Your task to perform on an android device: turn on the 24-hour format for clock Image 0: 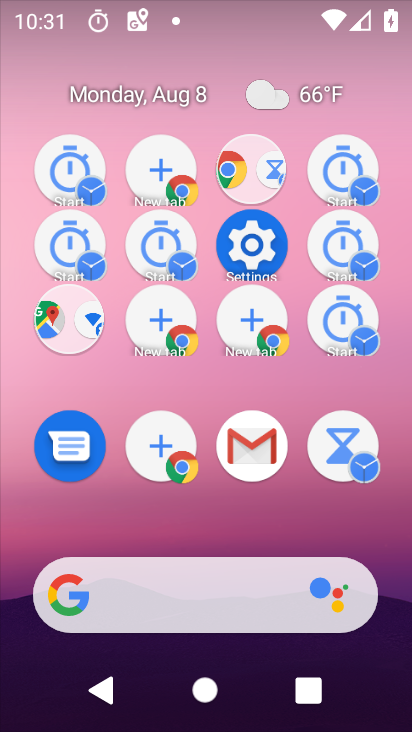
Step 0: drag from (260, 401) to (220, 399)
Your task to perform on an android device: turn on the 24-hour format for clock Image 1: 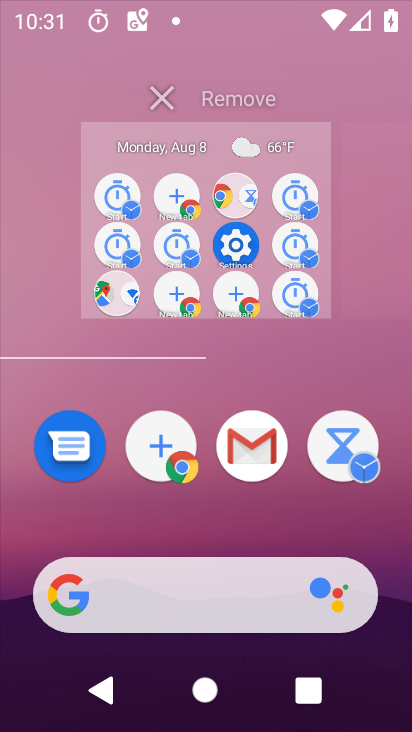
Step 1: drag from (261, 351) to (241, 214)
Your task to perform on an android device: turn on the 24-hour format for clock Image 2: 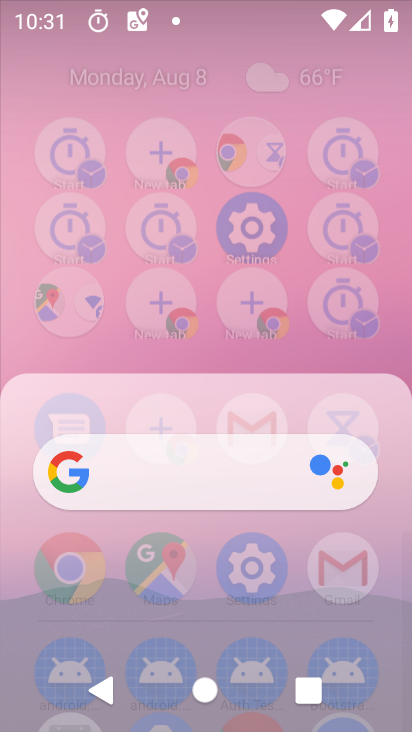
Step 2: drag from (256, 445) to (245, 350)
Your task to perform on an android device: turn on the 24-hour format for clock Image 3: 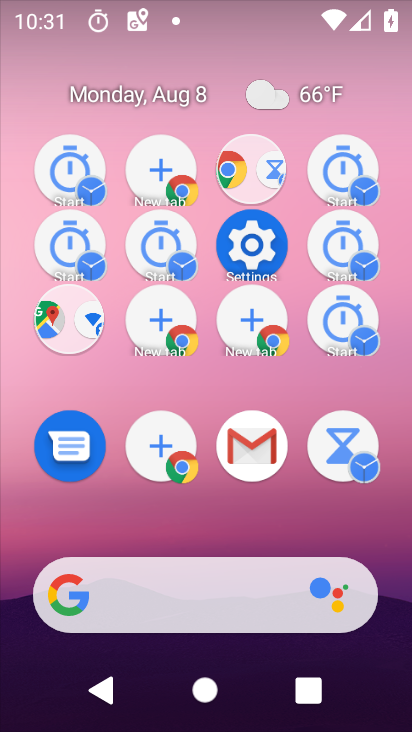
Step 3: drag from (244, 504) to (220, 307)
Your task to perform on an android device: turn on the 24-hour format for clock Image 4: 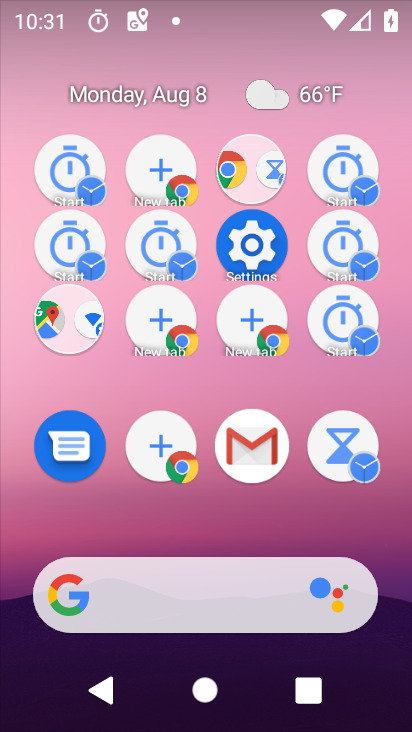
Step 4: drag from (221, 468) to (223, 406)
Your task to perform on an android device: turn on the 24-hour format for clock Image 5: 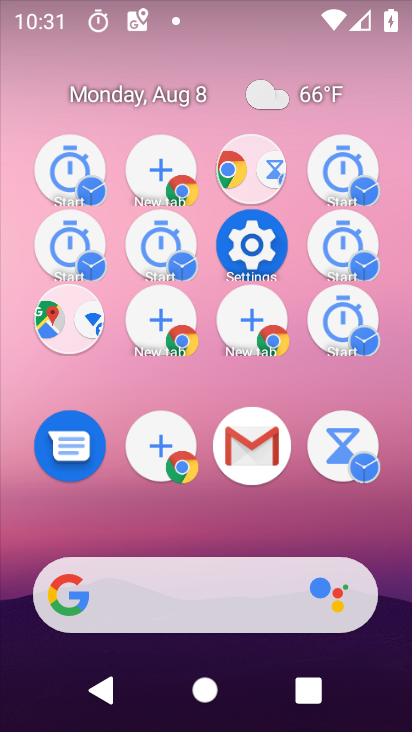
Step 5: drag from (227, 618) to (225, 261)
Your task to perform on an android device: turn on the 24-hour format for clock Image 6: 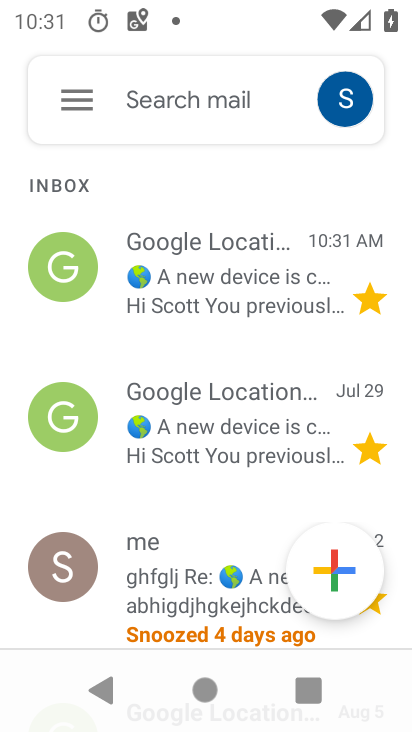
Step 6: press back button
Your task to perform on an android device: turn on the 24-hour format for clock Image 7: 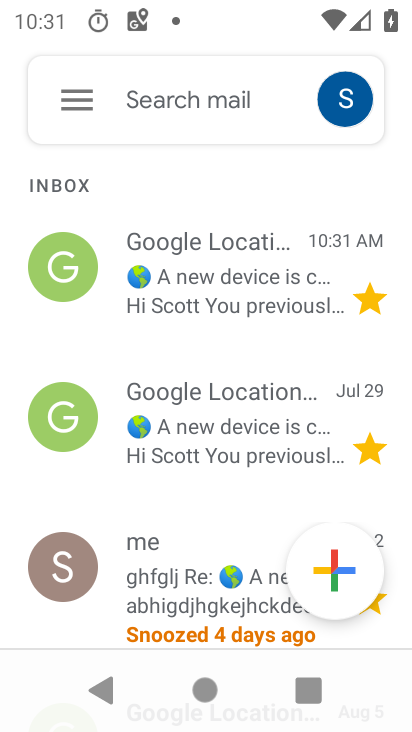
Step 7: press back button
Your task to perform on an android device: turn on the 24-hour format for clock Image 8: 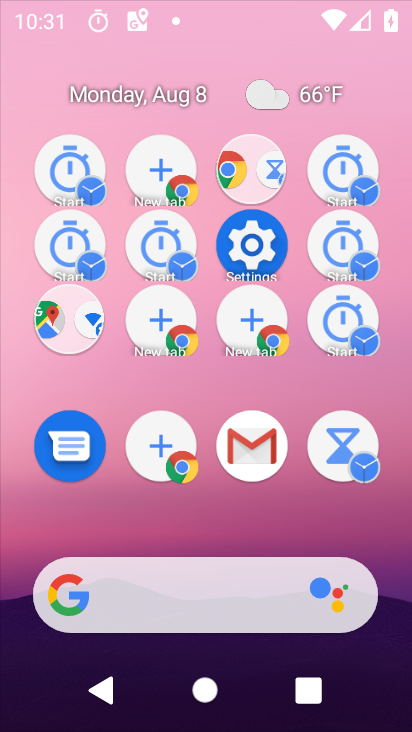
Step 8: press back button
Your task to perform on an android device: turn on the 24-hour format for clock Image 9: 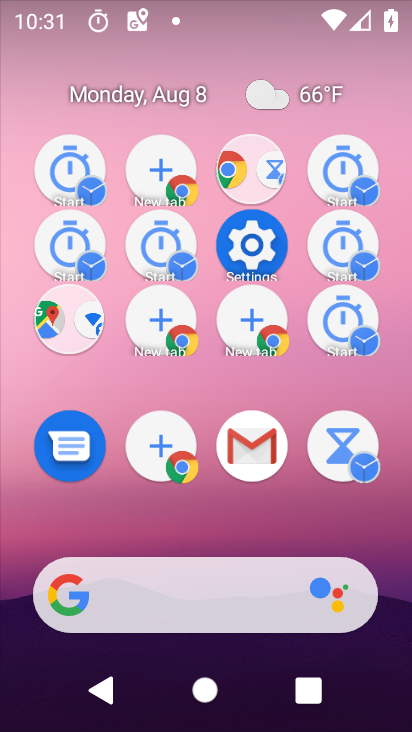
Step 9: drag from (227, 350) to (200, 123)
Your task to perform on an android device: turn on the 24-hour format for clock Image 10: 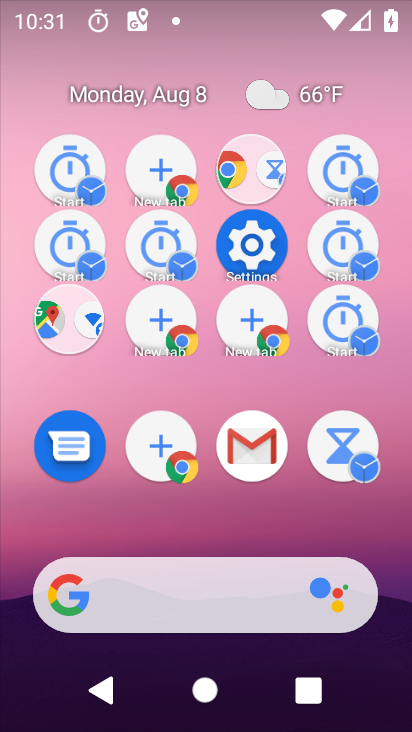
Step 10: drag from (246, 410) to (235, 186)
Your task to perform on an android device: turn on the 24-hour format for clock Image 11: 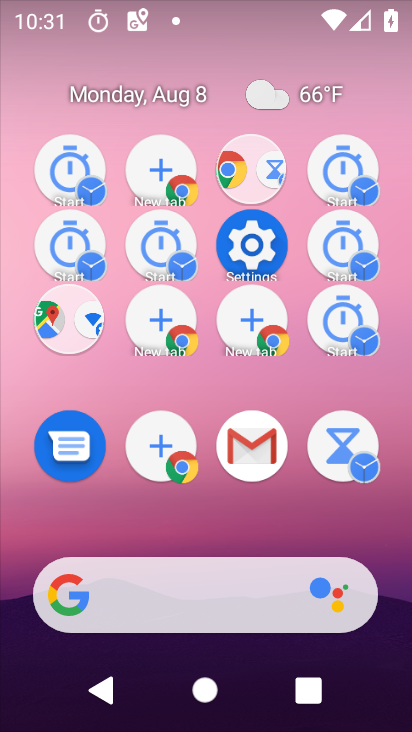
Step 11: drag from (288, 147) to (211, 82)
Your task to perform on an android device: turn on the 24-hour format for clock Image 12: 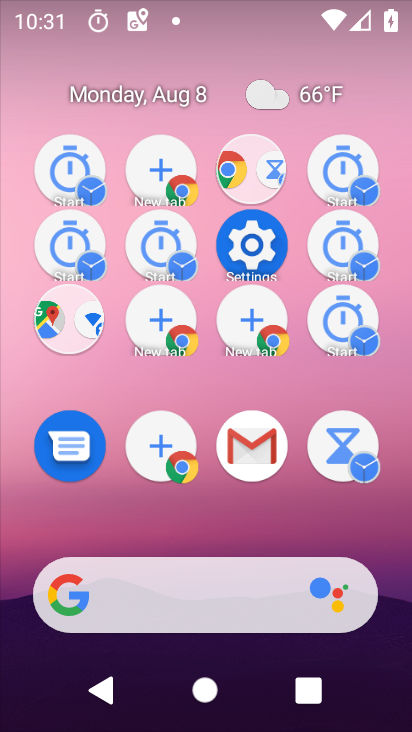
Step 12: click (183, 84)
Your task to perform on an android device: turn on the 24-hour format for clock Image 13: 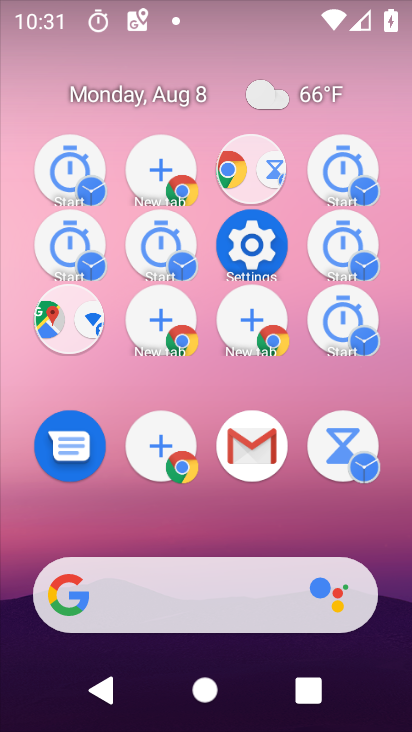
Step 13: drag from (212, 180) to (259, 201)
Your task to perform on an android device: turn on the 24-hour format for clock Image 14: 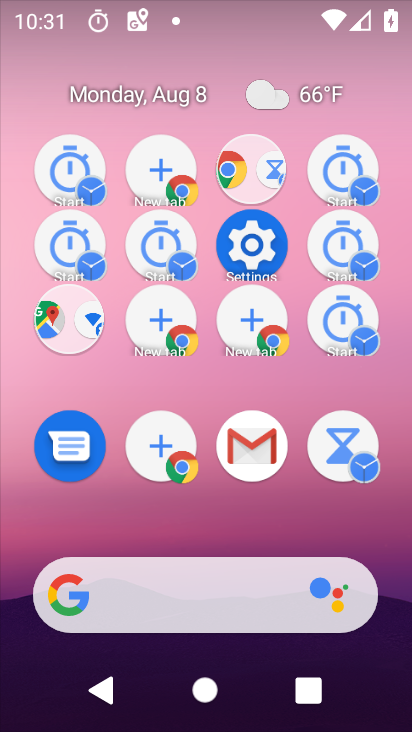
Step 14: drag from (281, 497) to (279, 194)
Your task to perform on an android device: turn on the 24-hour format for clock Image 15: 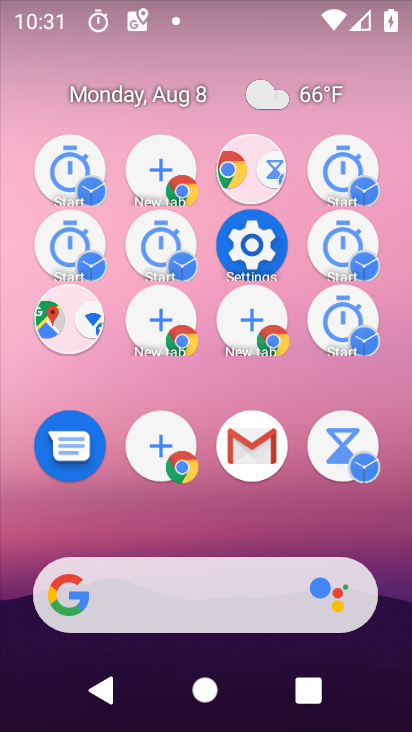
Step 15: drag from (280, 598) to (290, 154)
Your task to perform on an android device: turn on the 24-hour format for clock Image 16: 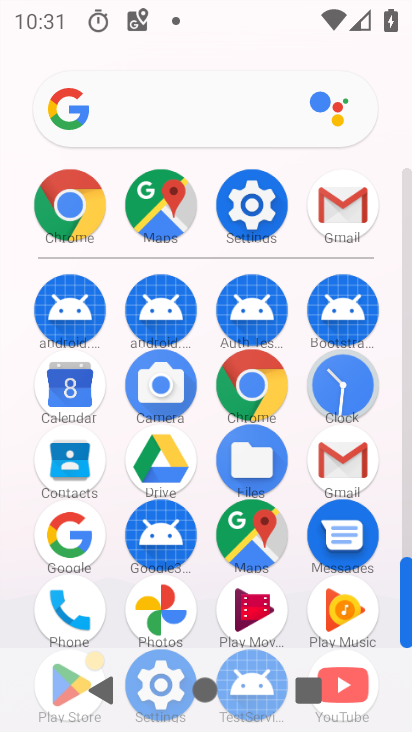
Step 16: click (344, 381)
Your task to perform on an android device: turn on the 24-hour format for clock Image 17: 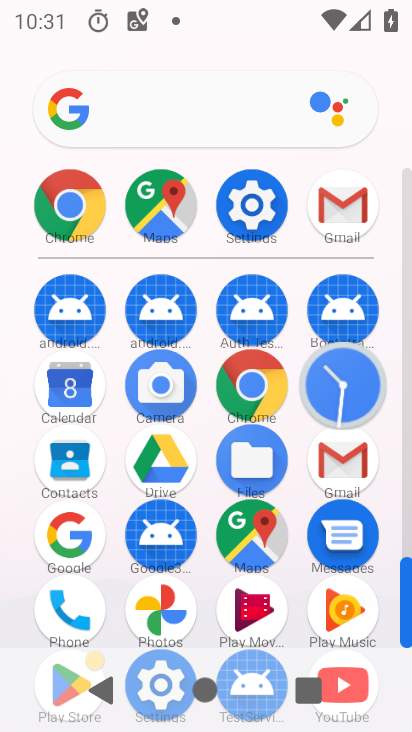
Step 17: click (344, 381)
Your task to perform on an android device: turn on the 24-hour format for clock Image 18: 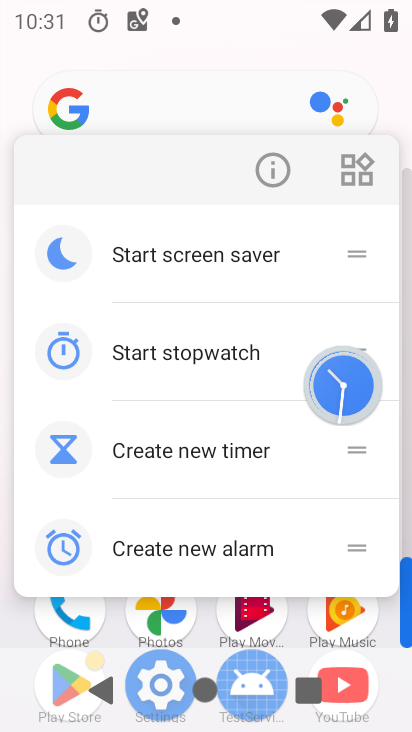
Step 18: click (344, 382)
Your task to perform on an android device: turn on the 24-hour format for clock Image 19: 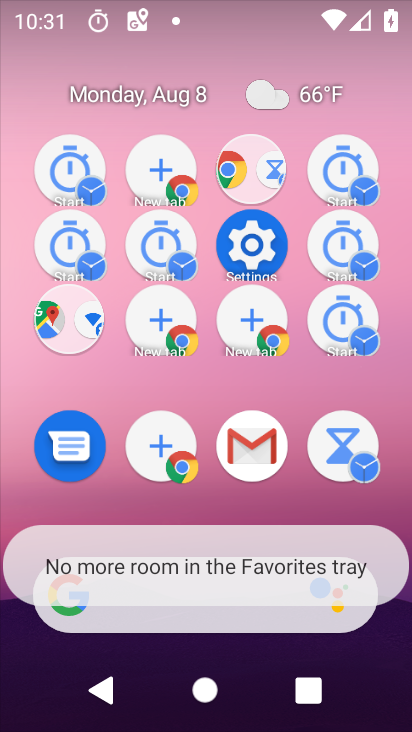
Step 19: click (198, 389)
Your task to perform on an android device: turn on the 24-hour format for clock Image 20: 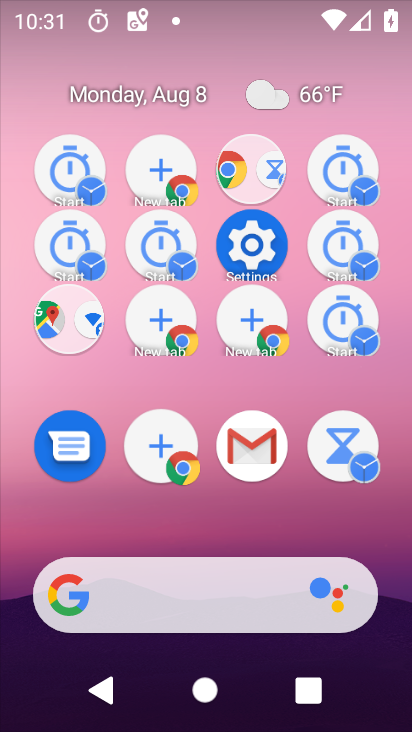
Step 20: click (198, 389)
Your task to perform on an android device: turn on the 24-hour format for clock Image 21: 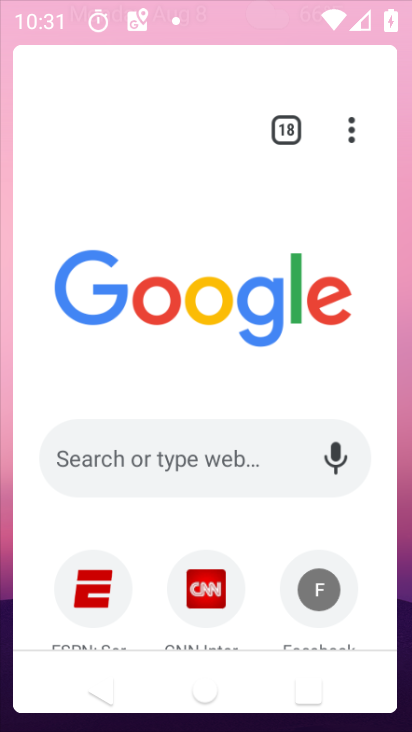
Step 21: click (193, 155)
Your task to perform on an android device: turn on the 24-hour format for clock Image 22: 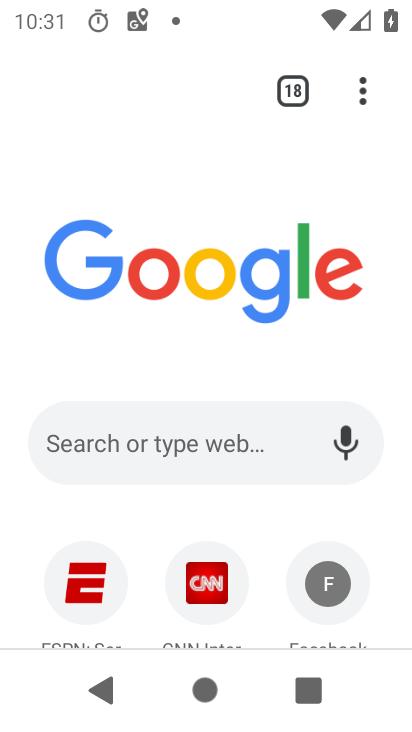
Step 22: drag from (261, 501) to (217, 128)
Your task to perform on an android device: turn on the 24-hour format for clock Image 23: 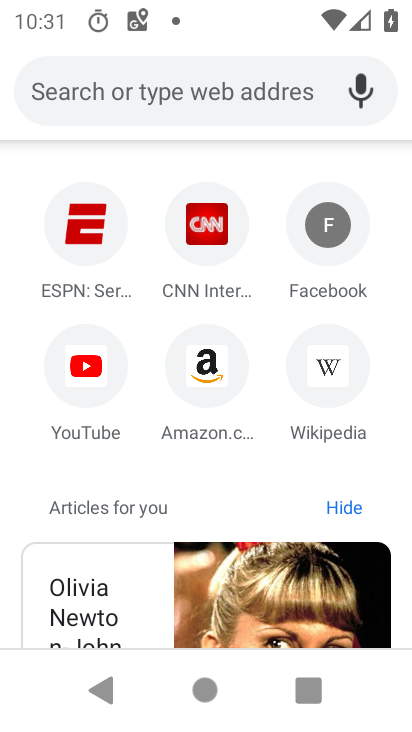
Step 23: press back button
Your task to perform on an android device: turn on the 24-hour format for clock Image 24: 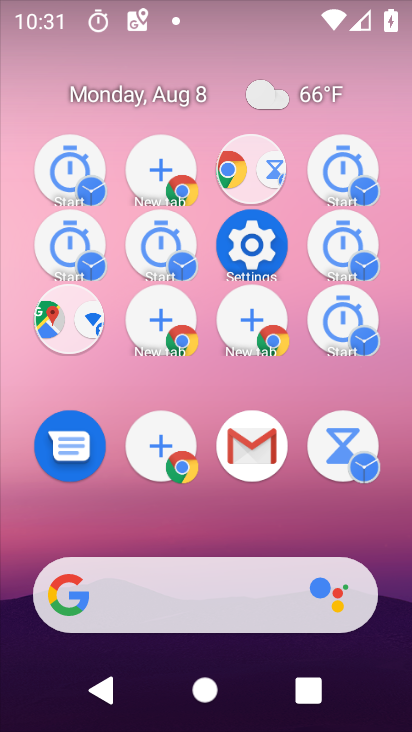
Step 24: drag from (278, 489) to (264, 249)
Your task to perform on an android device: turn on the 24-hour format for clock Image 25: 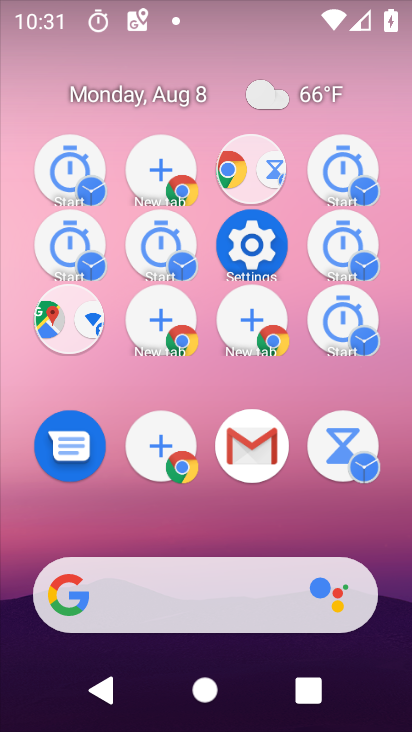
Step 25: drag from (286, 427) to (273, 166)
Your task to perform on an android device: turn on the 24-hour format for clock Image 26: 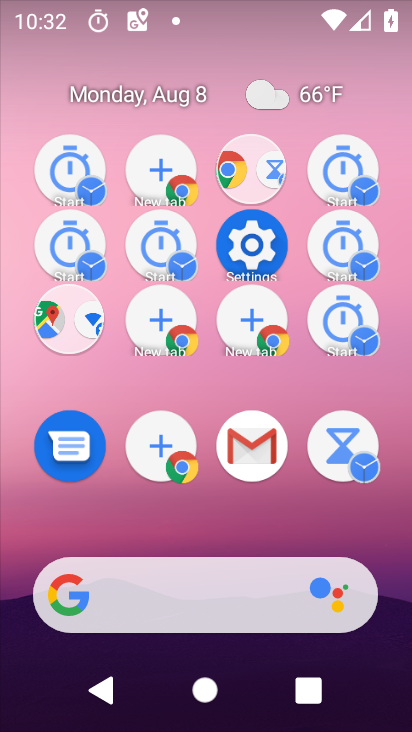
Step 26: drag from (255, 391) to (247, 180)
Your task to perform on an android device: turn on the 24-hour format for clock Image 27: 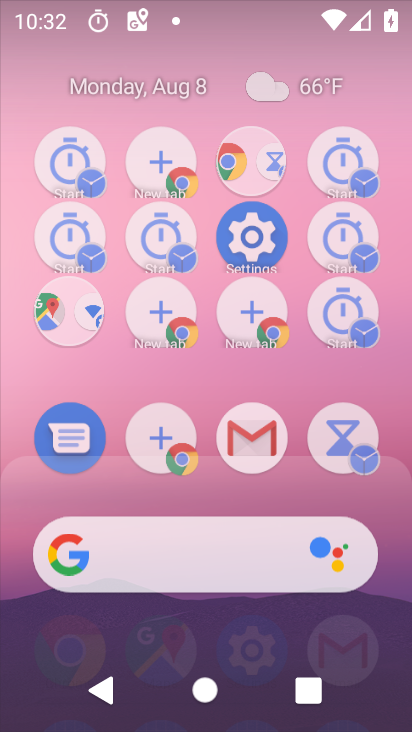
Step 27: drag from (229, 393) to (238, 92)
Your task to perform on an android device: turn on the 24-hour format for clock Image 28: 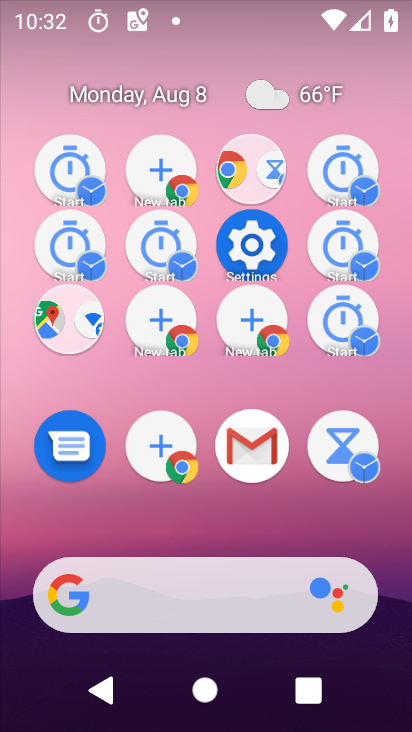
Step 28: drag from (275, 408) to (288, 171)
Your task to perform on an android device: turn on the 24-hour format for clock Image 29: 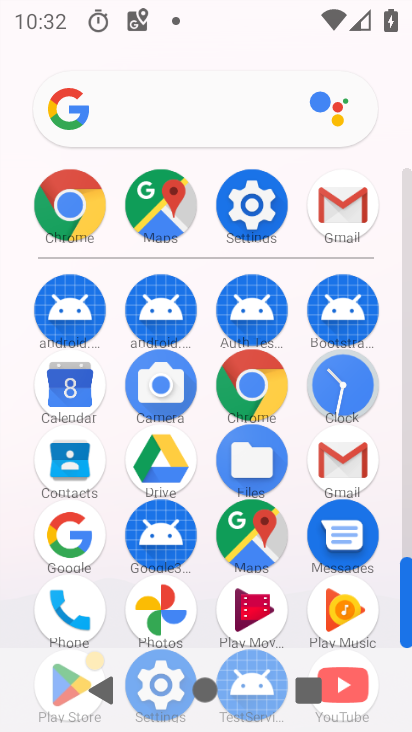
Step 29: click (247, 210)
Your task to perform on an android device: turn on the 24-hour format for clock Image 30: 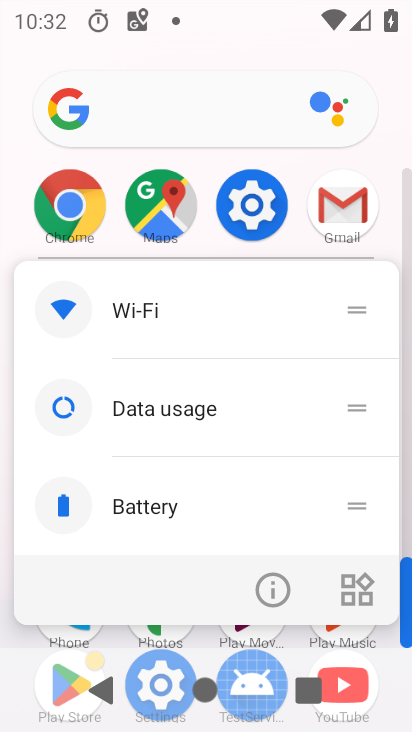
Step 30: click (252, 221)
Your task to perform on an android device: turn on the 24-hour format for clock Image 31: 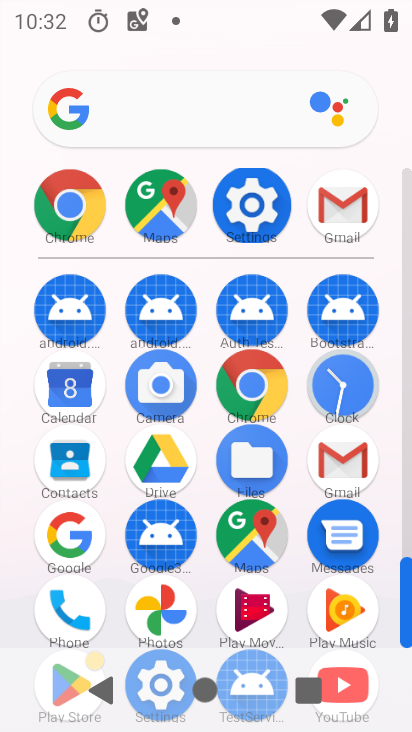
Step 31: click (255, 228)
Your task to perform on an android device: turn on the 24-hour format for clock Image 32: 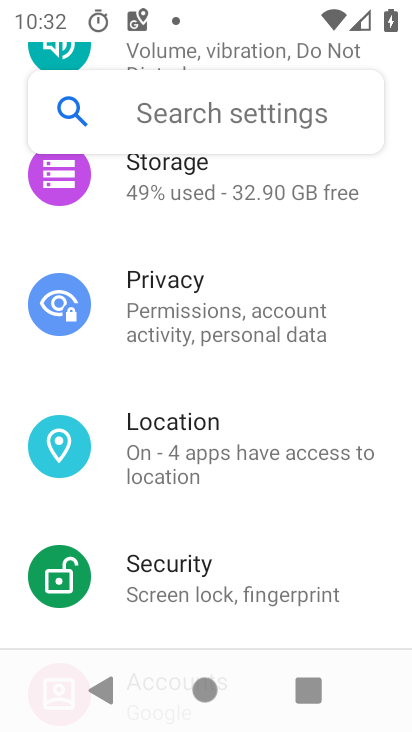
Step 32: drag from (202, 555) to (194, 195)
Your task to perform on an android device: turn on the 24-hour format for clock Image 33: 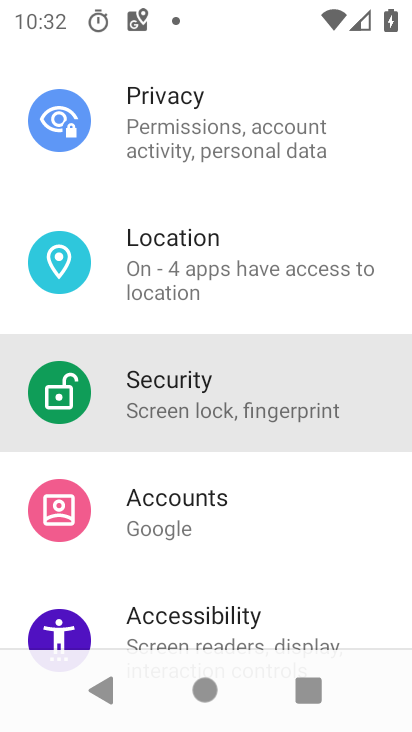
Step 33: drag from (141, 462) to (162, 206)
Your task to perform on an android device: turn on the 24-hour format for clock Image 34: 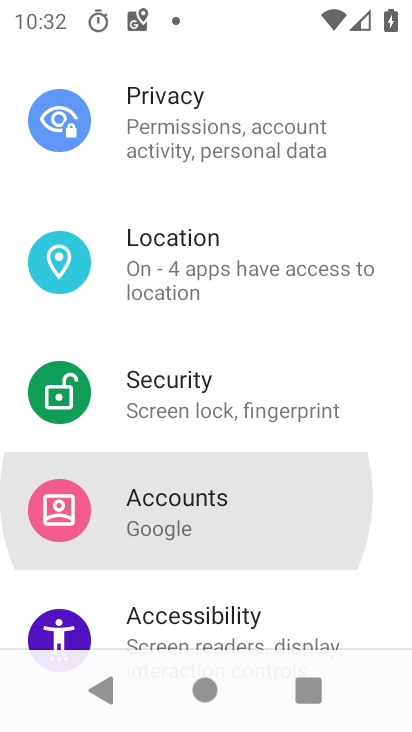
Step 34: drag from (167, 457) to (196, 396)
Your task to perform on an android device: turn on the 24-hour format for clock Image 35: 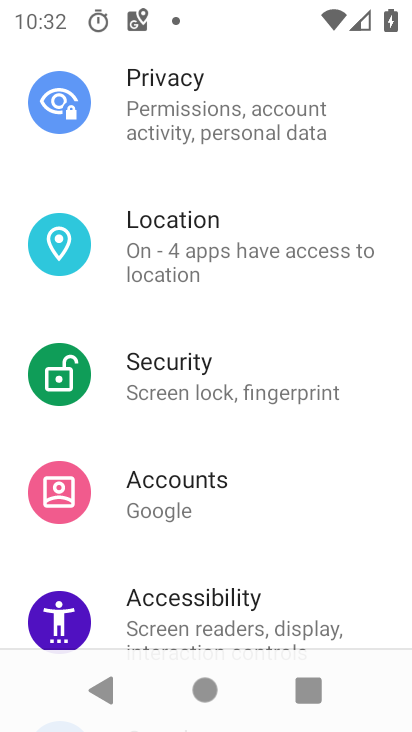
Step 35: drag from (222, 566) to (214, 181)
Your task to perform on an android device: turn on the 24-hour format for clock Image 36: 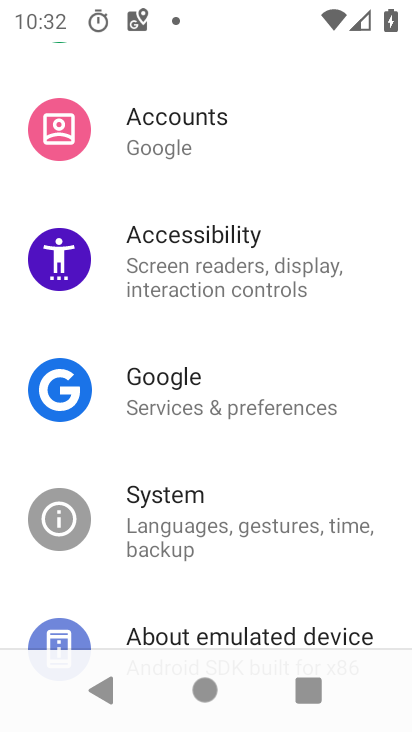
Step 36: drag from (239, 482) to (221, 115)
Your task to perform on an android device: turn on the 24-hour format for clock Image 37: 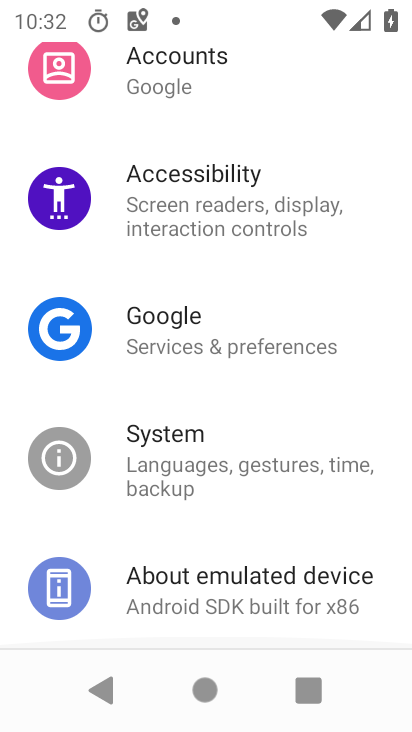
Step 37: drag from (271, 479) to (294, 204)
Your task to perform on an android device: turn on the 24-hour format for clock Image 38: 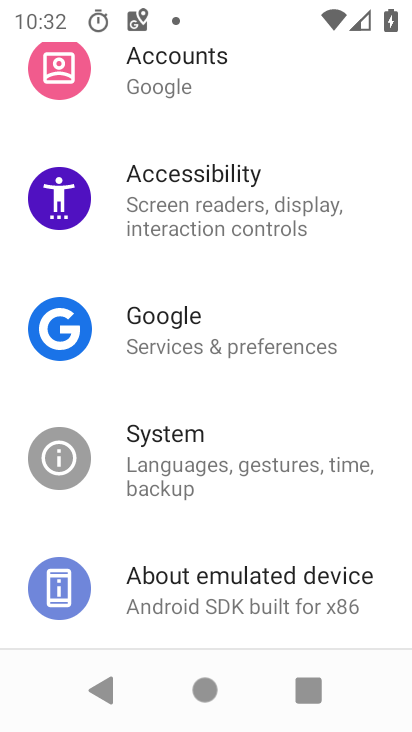
Step 38: press back button
Your task to perform on an android device: turn on the 24-hour format for clock Image 39: 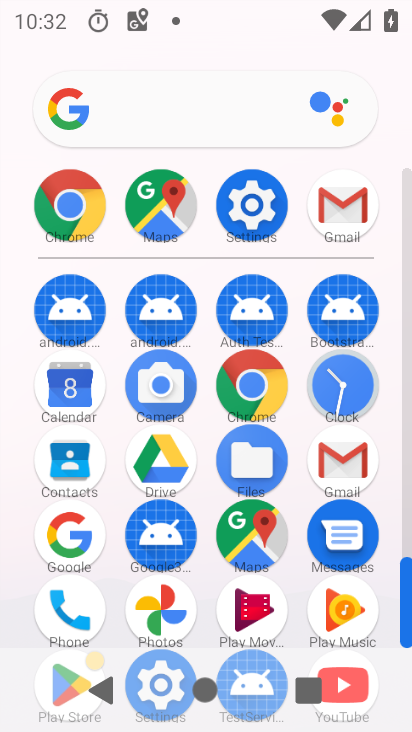
Step 39: click (343, 388)
Your task to perform on an android device: turn on the 24-hour format for clock Image 40: 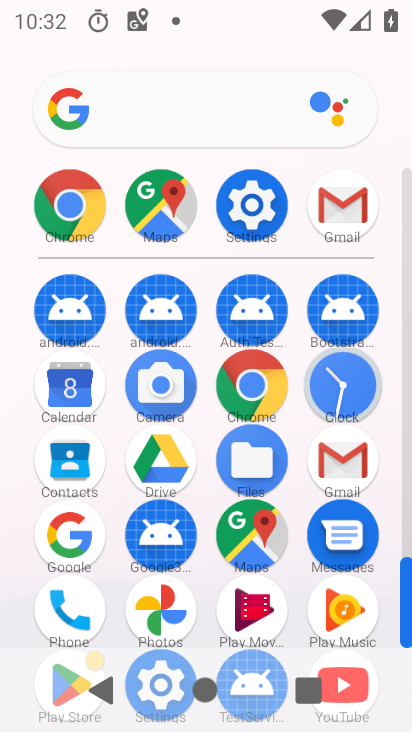
Step 40: click (342, 387)
Your task to perform on an android device: turn on the 24-hour format for clock Image 41: 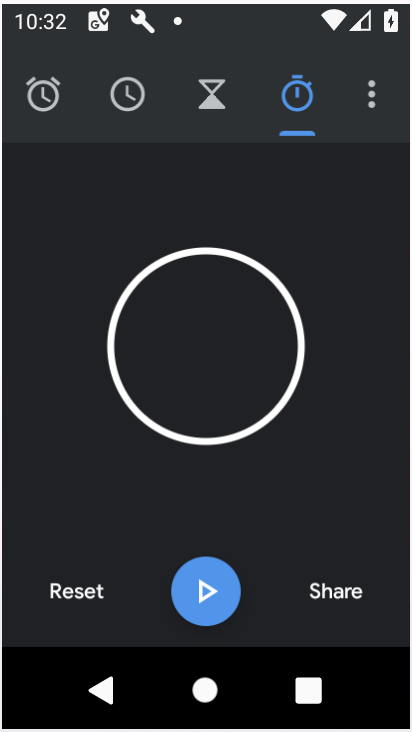
Step 41: click (344, 399)
Your task to perform on an android device: turn on the 24-hour format for clock Image 42: 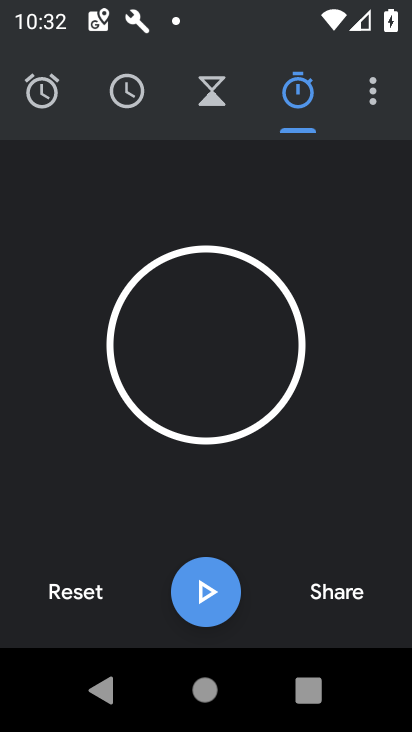
Step 42: drag from (371, 101) to (92, 519)
Your task to perform on an android device: turn on the 24-hour format for clock Image 43: 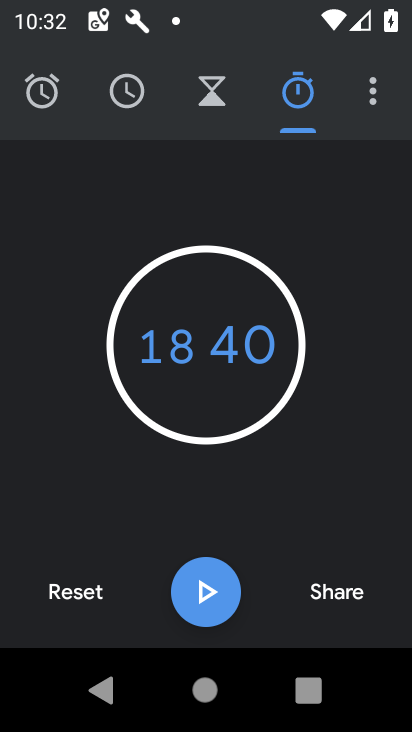
Step 43: click (145, 157)
Your task to perform on an android device: turn on the 24-hour format for clock Image 44: 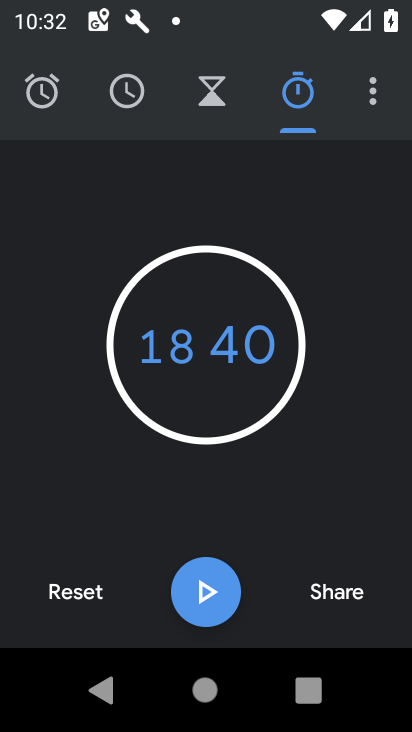
Step 44: click (361, 101)
Your task to perform on an android device: turn on the 24-hour format for clock Image 45: 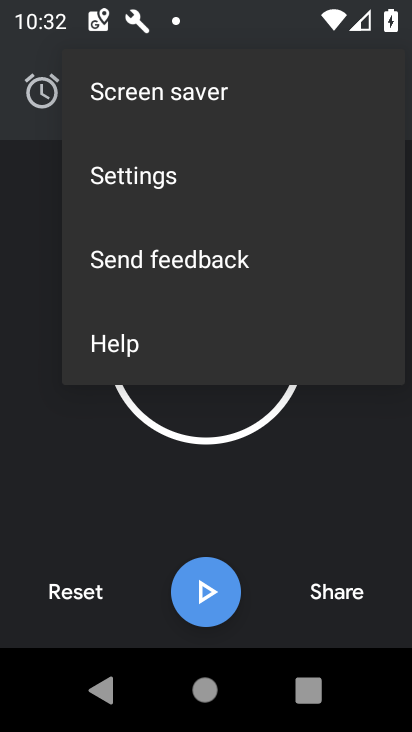
Step 45: click (100, 202)
Your task to perform on an android device: turn on the 24-hour format for clock Image 46: 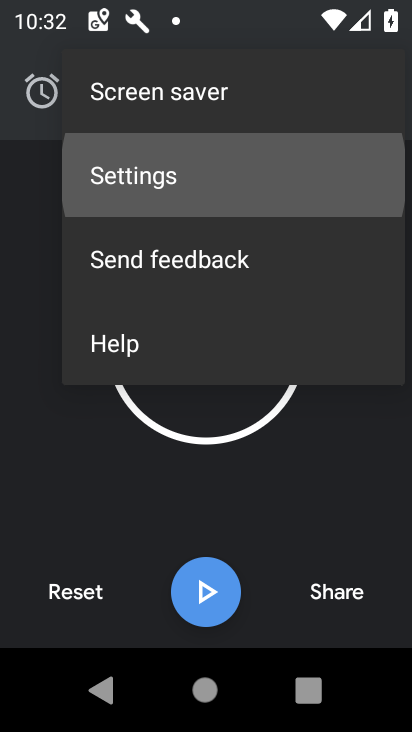
Step 46: click (103, 201)
Your task to perform on an android device: turn on the 24-hour format for clock Image 47: 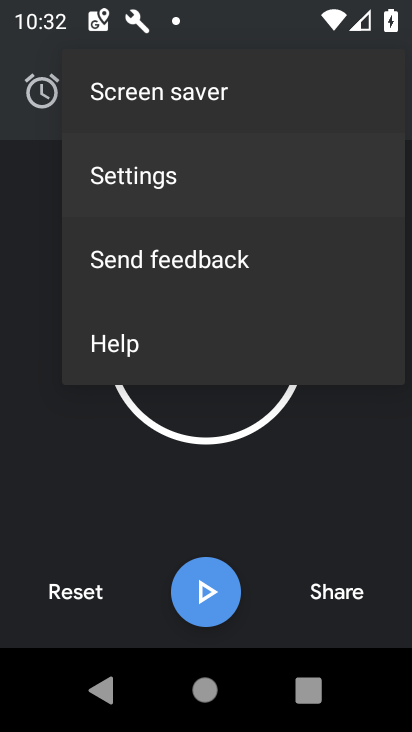
Step 47: click (113, 200)
Your task to perform on an android device: turn on the 24-hour format for clock Image 48: 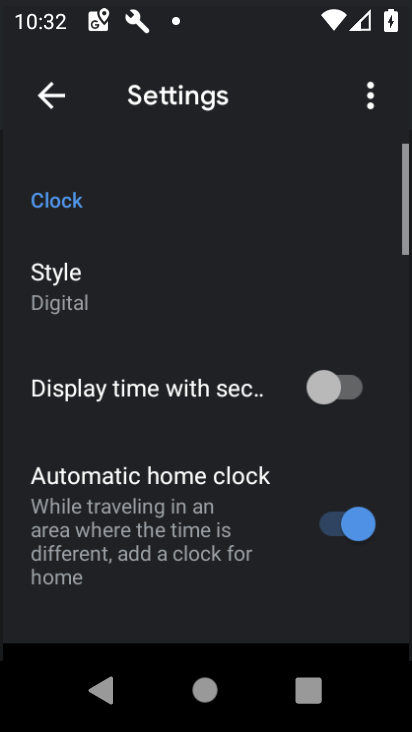
Step 48: click (125, 199)
Your task to perform on an android device: turn on the 24-hour format for clock Image 49: 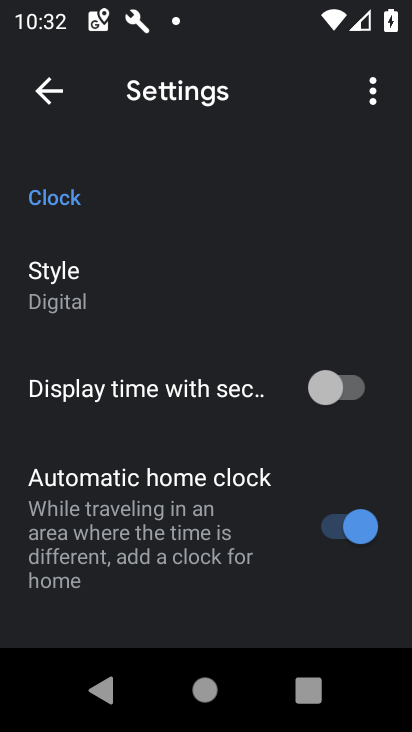
Step 49: click (82, 283)
Your task to perform on an android device: turn on the 24-hour format for clock Image 50: 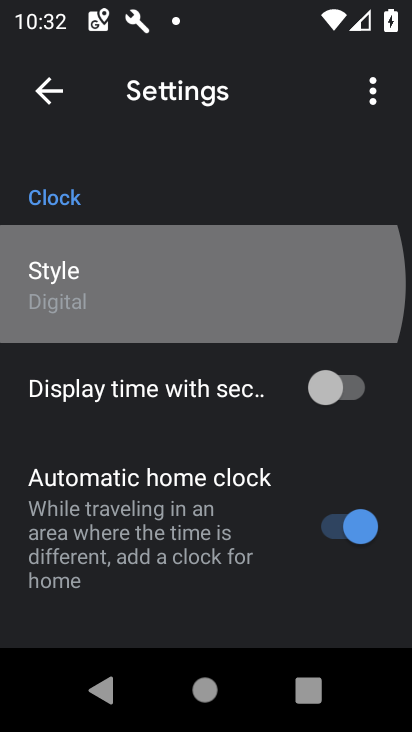
Step 50: click (82, 284)
Your task to perform on an android device: turn on the 24-hour format for clock Image 51: 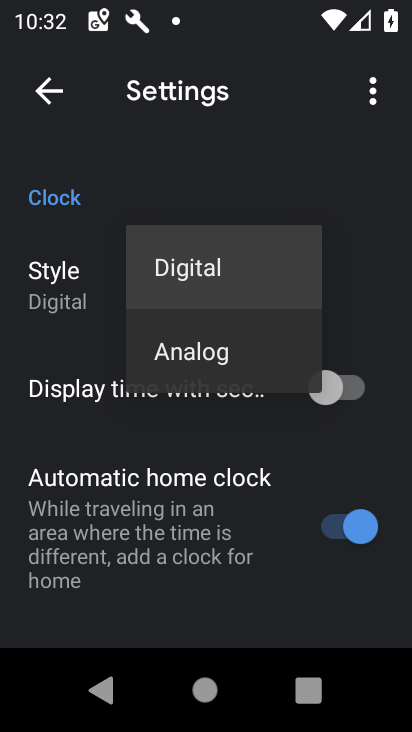
Step 51: click (83, 289)
Your task to perform on an android device: turn on the 24-hour format for clock Image 52: 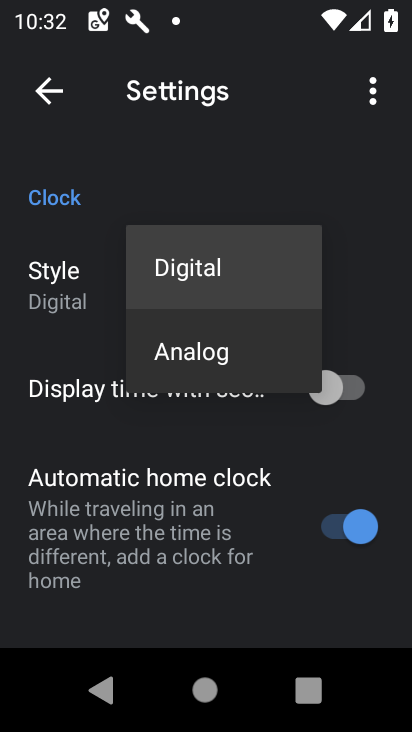
Step 52: click (98, 237)
Your task to perform on an android device: turn on the 24-hour format for clock Image 53: 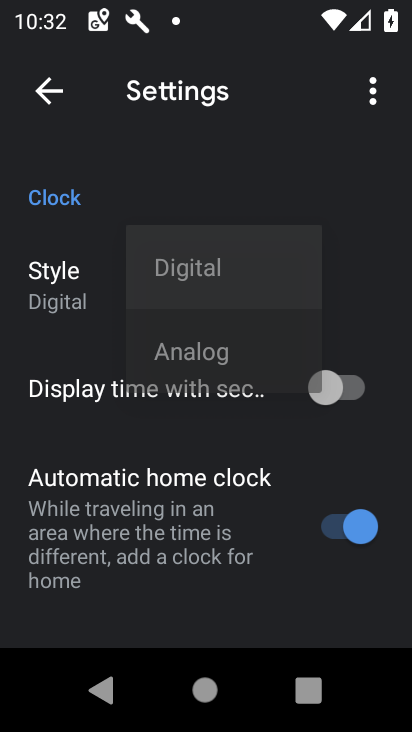
Step 53: click (107, 232)
Your task to perform on an android device: turn on the 24-hour format for clock Image 54: 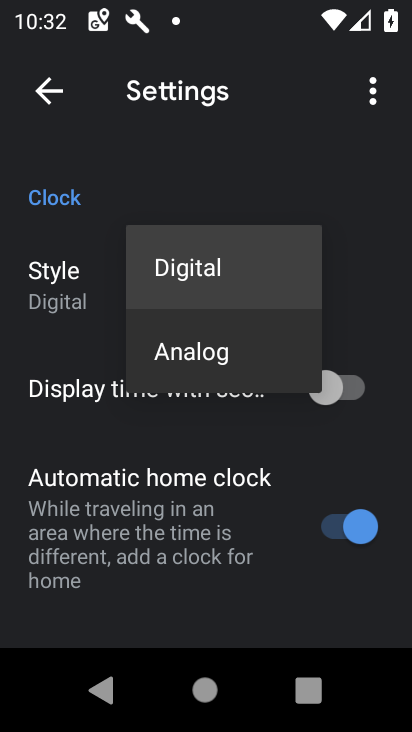
Step 54: click (196, 269)
Your task to perform on an android device: turn on the 24-hour format for clock Image 55: 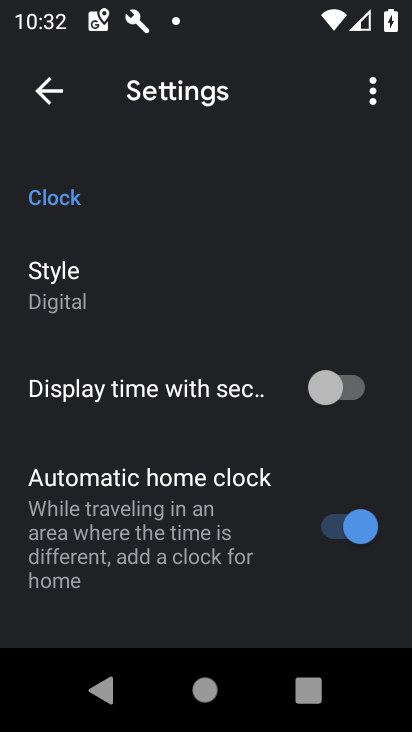
Step 55: drag from (208, 514) to (204, 234)
Your task to perform on an android device: turn on the 24-hour format for clock Image 56: 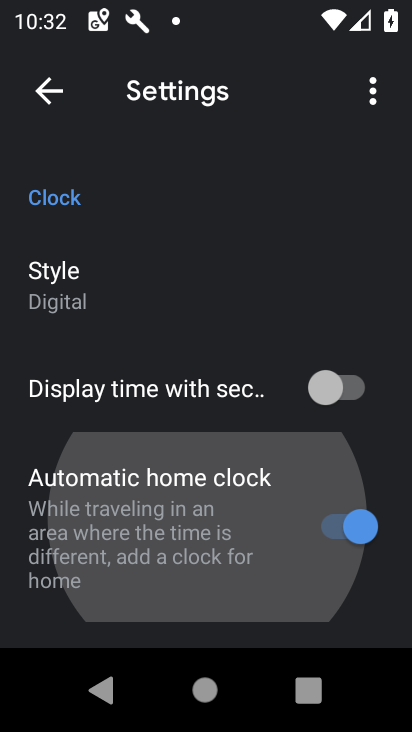
Step 56: drag from (177, 588) to (195, 172)
Your task to perform on an android device: turn on the 24-hour format for clock Image 57: 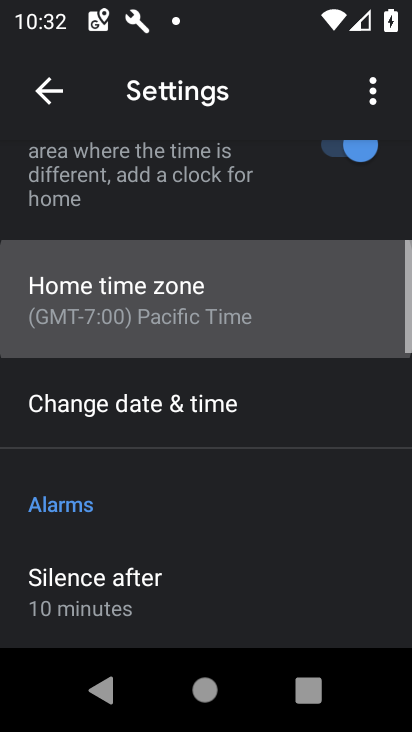
Step 57: drag from (188, 510) to (167, 282)
Your task to perform on an android device: turn on the 24-hour format for clock Image 58: 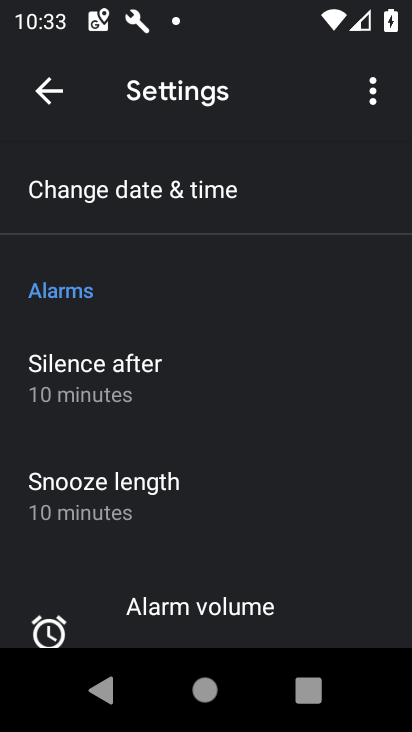
Step 58: click (139, 193)
Your task to perform on an android device: turn on the 24-hour format for clock Image 59: 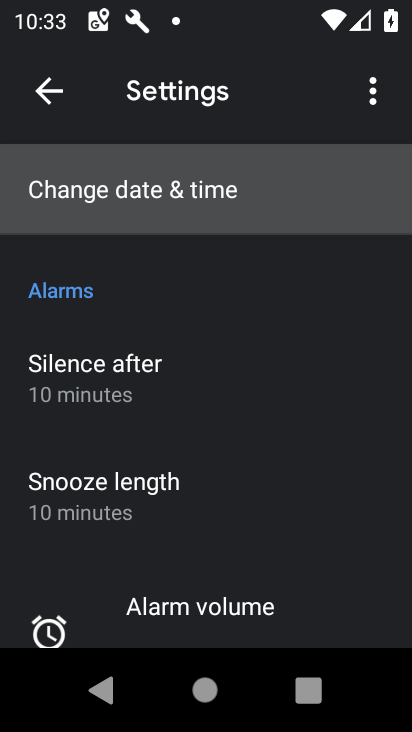
Step 59: click (139, 192)
Your task to perform on an android device: turn on the 24-hour format for clock Image 60: 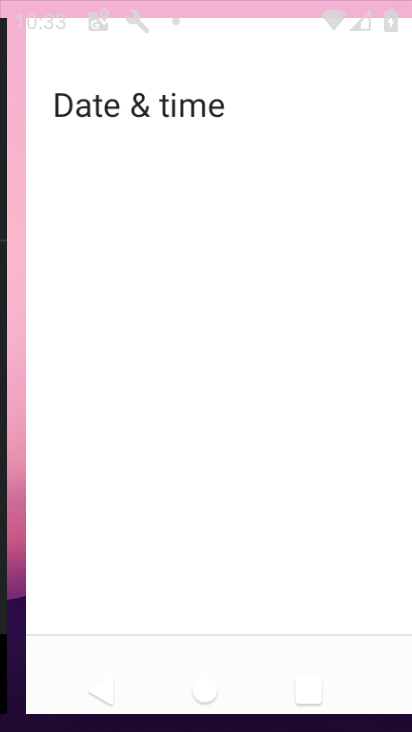
Step 60: click (140, 191)
Your task to perform on an android device: turn on the 24-hour format for clock Image 61: 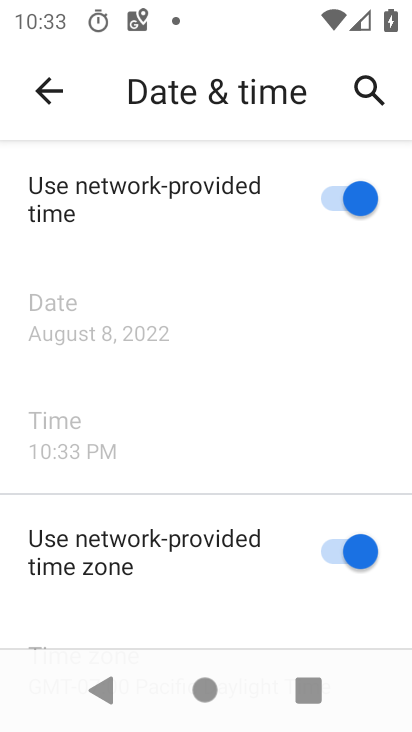
Step 61: drag from (198, 558) to (195, 357)
Your task to perform on an android device: turn on the 24-hour format for clock Image 62: 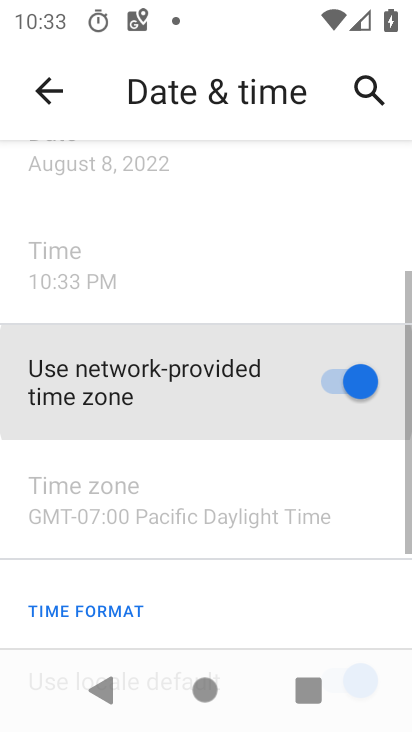
Step 62: drag from (214, 573) to (217, 271)
Your task to perform on an android device: turn on the 24-hour format for clock Image 63: 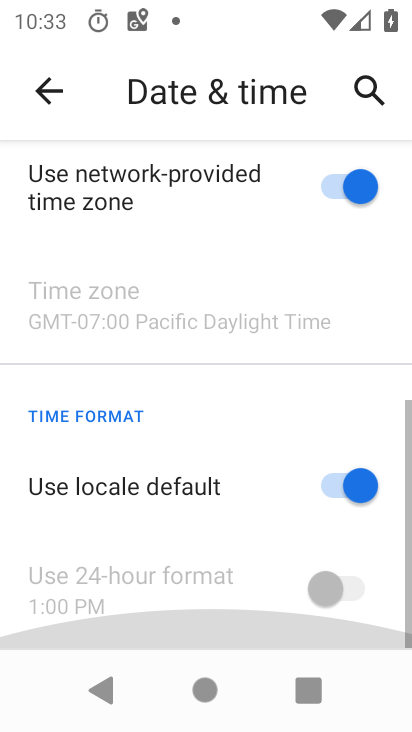
Step 63: drag from (261, 415) to (266, 277)
Your task to perform on an android device: turn on the 24-hour format for clock Image 64: 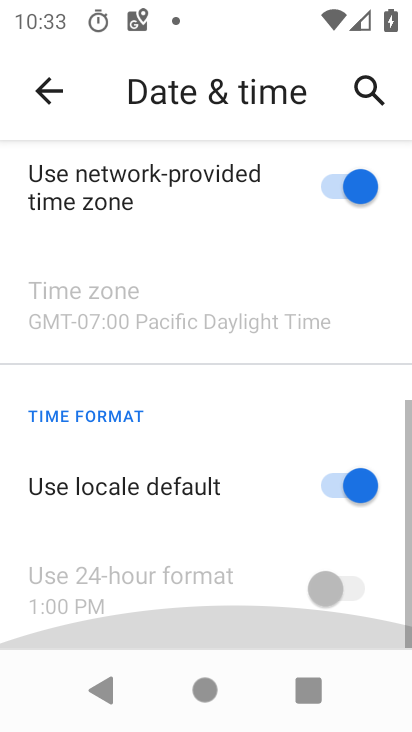
Step 64: drag from (297, 474) to (302, 286)
Your task to perform on an android device: turn on the 24-hour format for clock Image 65: 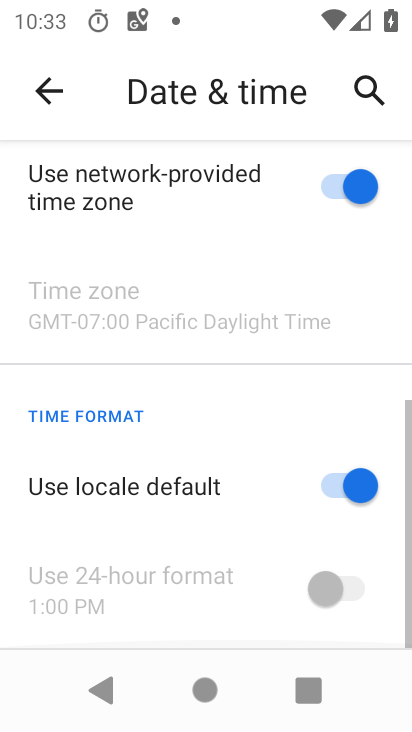
Step 65: drag from (272, 517) to (249, 340)
Your task to perform on an android device: turn on the 24-hour format for clock Image 66: 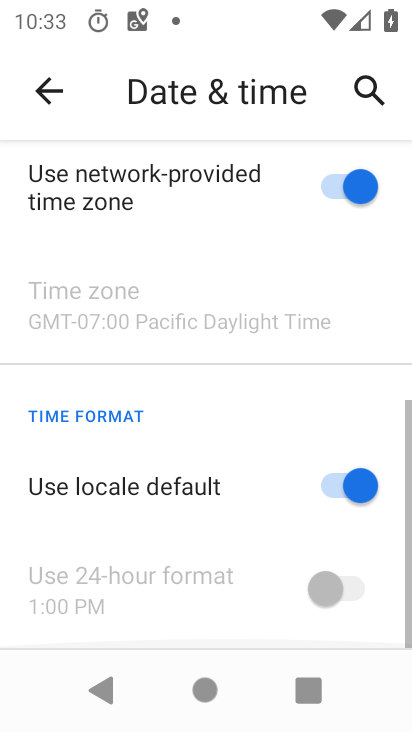
Step 66: click (334, 578)
Your task to perform on an android device: turn on the 24-hour format for clock Image 67: 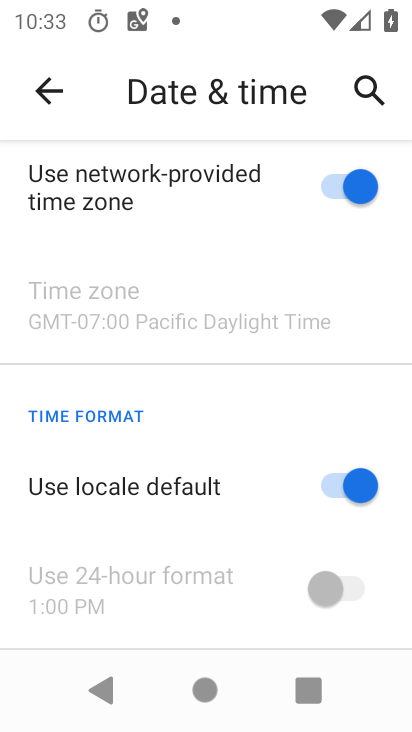
Step 67: click (345, 488)
Your task to perform on an android device: turn on the 24-hour format for clock Image 68: 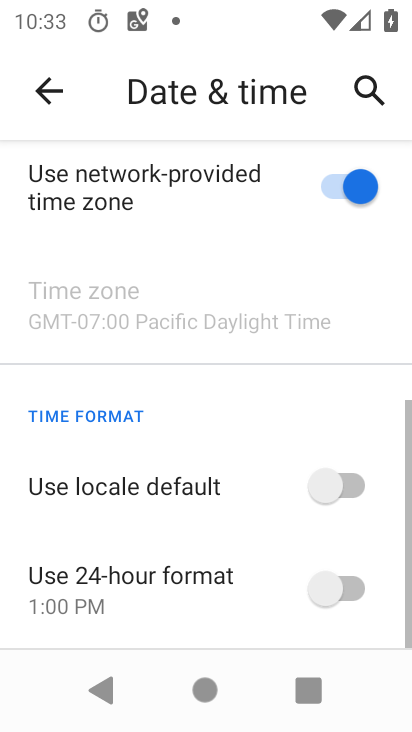
Step 68: click (323, 592)
Your task to perform on an android device: turn on the 24-hour format for clock Image 69: 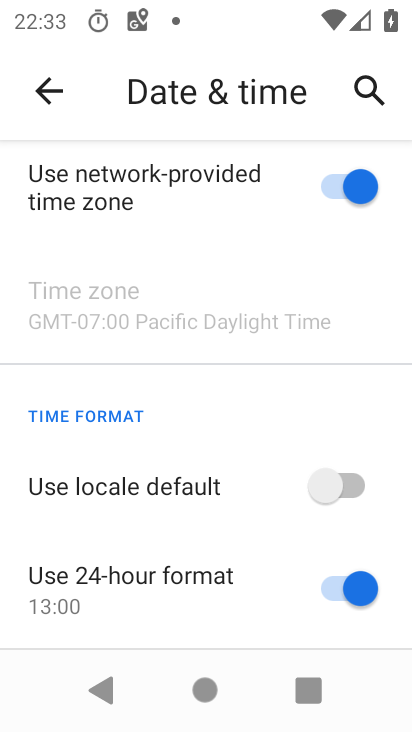
Step 69: task complete